Your task to perform on an android device: See recent photos Image 0: 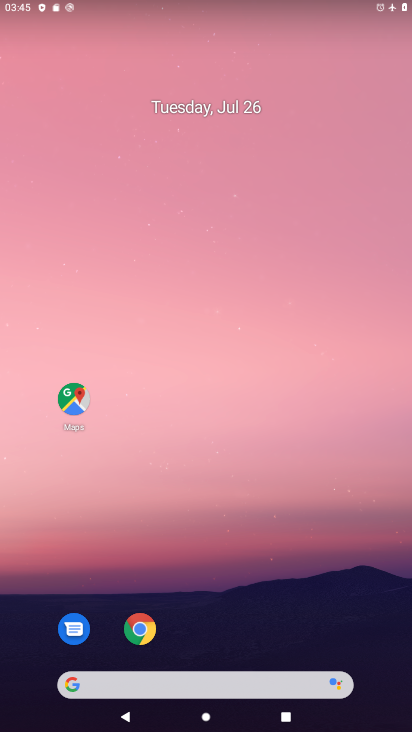
Step 0: drag from (223, 623) to (236, 28)
Your task to perform on an android device: See recent photos Image 1: 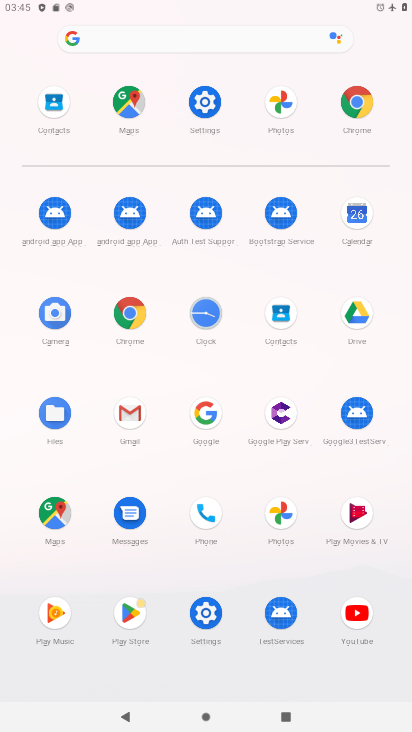
Step 1: click (281, 507)
Your task to perform on an android device: See recent photos Image 2: 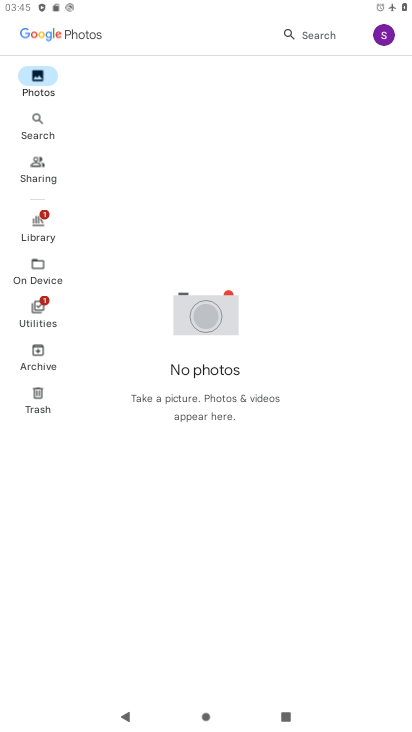
Step 2: click (29, 79)
Your task to perform on an android device: See recent photos Image 3: 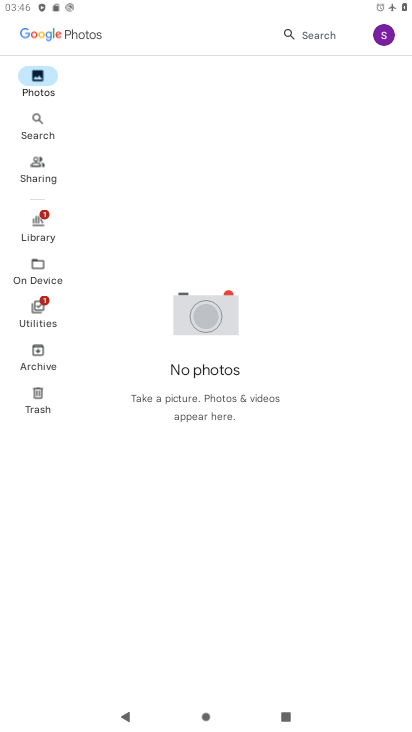
Step 3: task complete